Your task to perform on an android device: Open location settings Image 0: 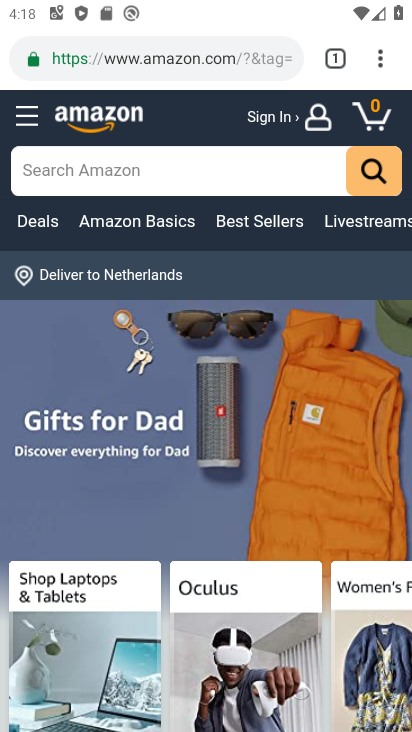
Step 0: press home button
Your task to perform on an android device: Open location settings Image 1: 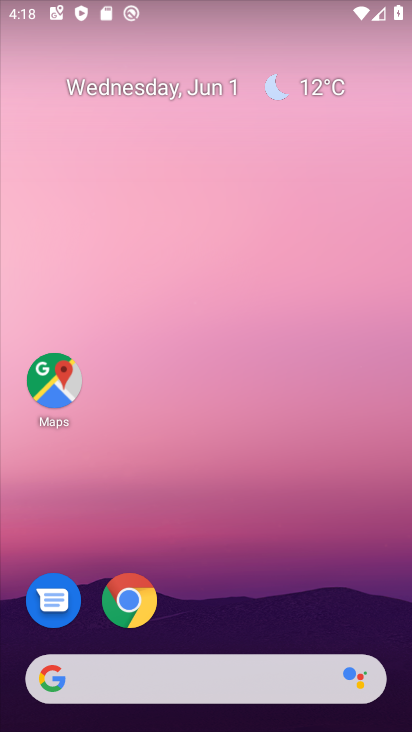
Step 1: drag from (378, 622) to (316, 166)
Your task to perform on an android device: Open location settings Image 2: 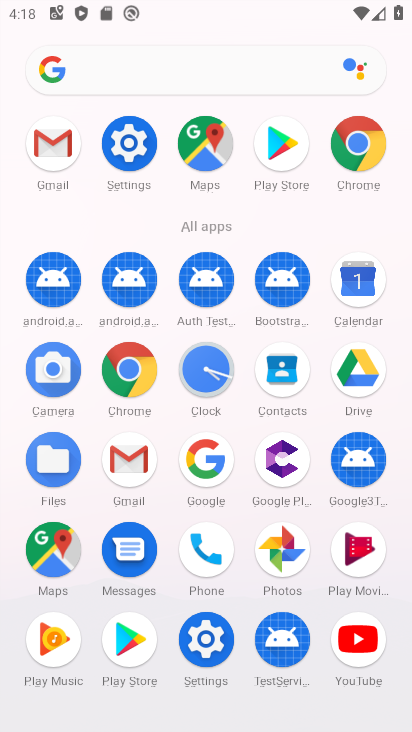
Step 2: click (208, 639)
Your task to perform on an android device: Open location settings Image 3: 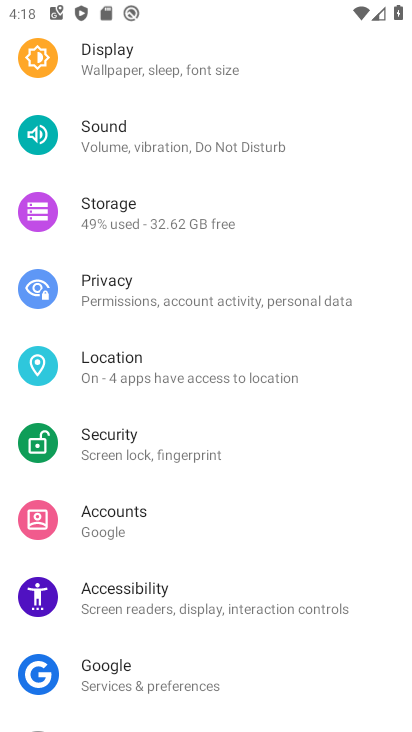
Step 3: click (135, 357)
Your task to perform on an android device: Open location settings Image 4: 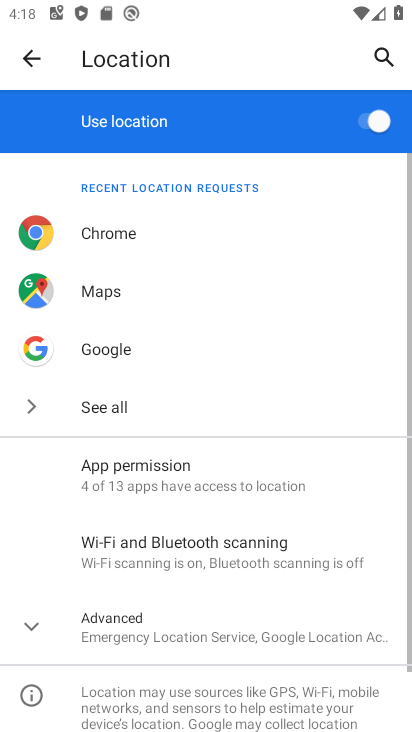
Step 4: click (30, 632)
Your task to perform on an android device: Open location settings Image 5: 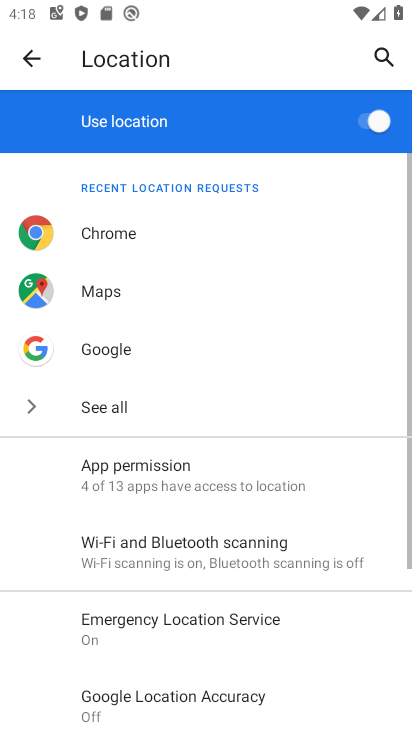
Step 5: task complete